Your task to perform on an android device: turn off javascript in the chrome app Image 0: 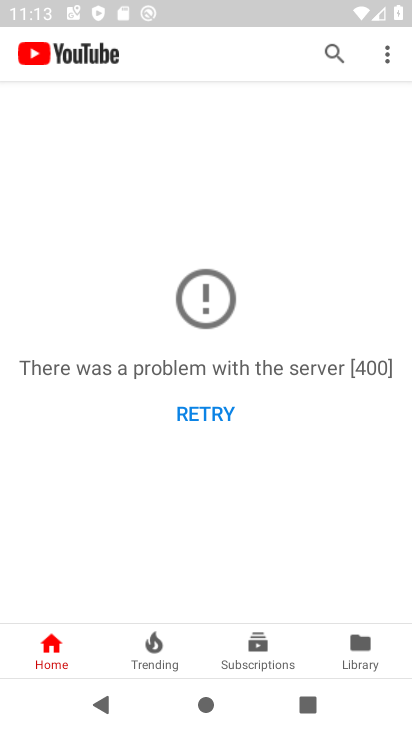
Step 0: press home button
Your task to perform on an android device: turn off javascript in the chrome app Image 1: 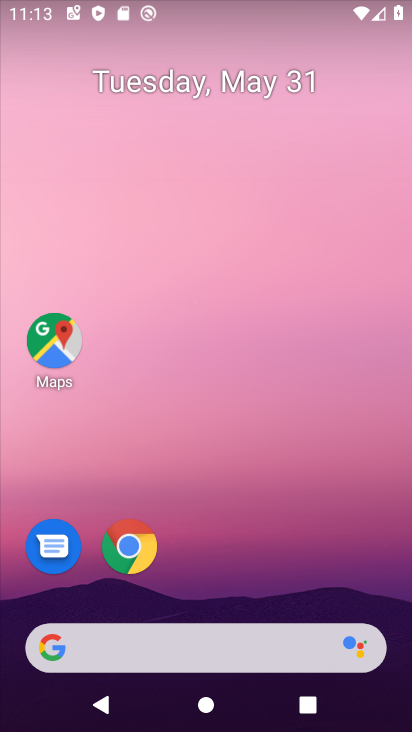
Step 1: click (147, 536)
Your task to perform on an android device: turn off javascript in the chrome app Image 2: 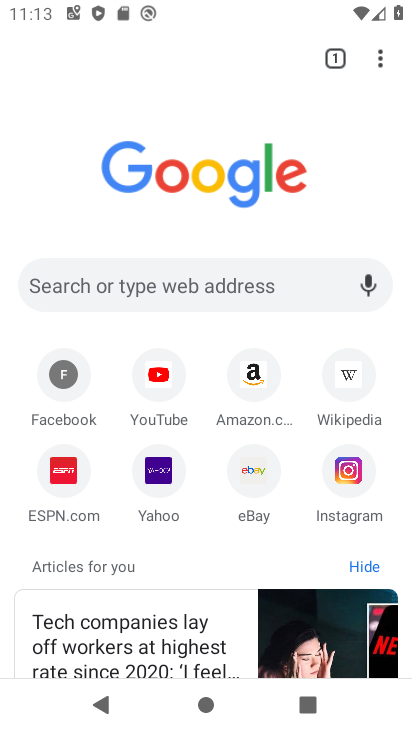
Step 2: click (379, 53)
Your task to perform on an android device: turn off javascript in the chrome app Image 3: 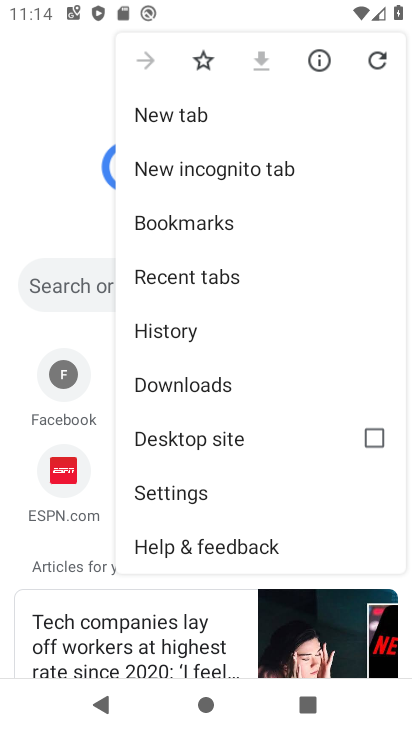
Step 3: click (221, 493)
Your task to perform on an android device: turn off javascript in the chrome app Image 4: 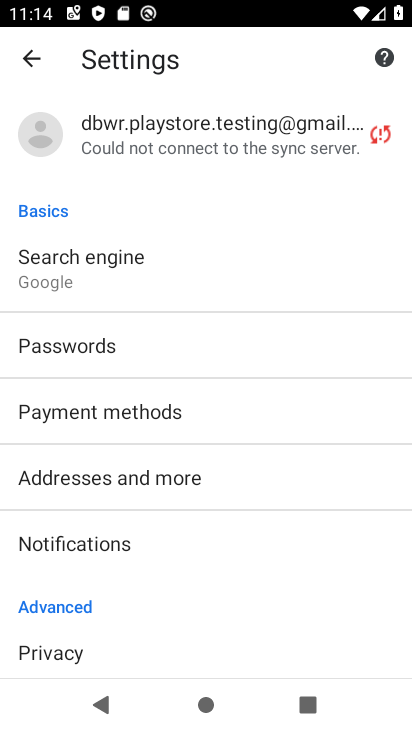
Step 4: drag from (225, 632) to (209, 271)
Your task to perform on an android device: turn off javascript in the chrome app Image 5: 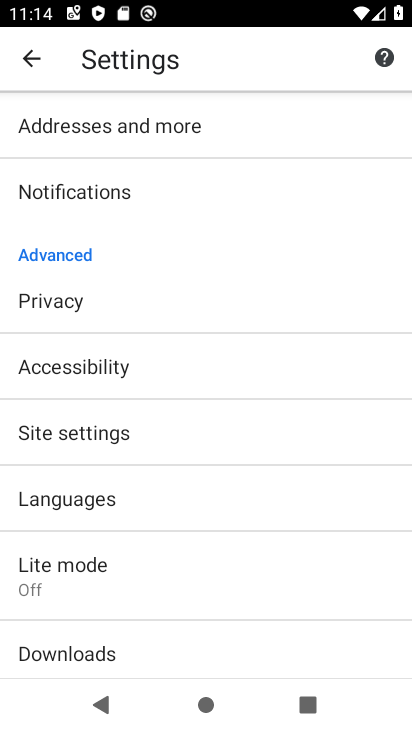
Step 5: click (188, 447)
Your task to perform on an android device: turn off javascript in the chrome app Image 6: 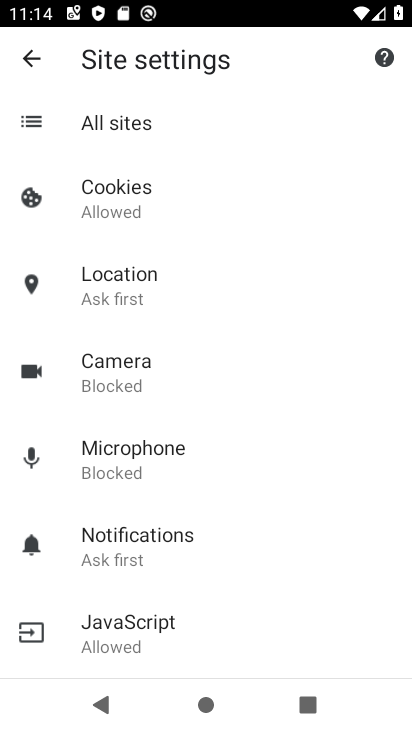
Step 6: click (220, 633)
Your task to perform on an android device: turn off javascript in the chrome app Image 7: 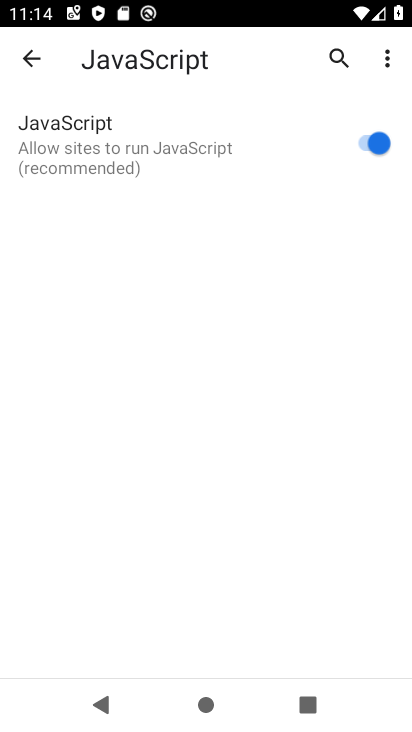
Step 7: click (377, 138)
Your task to perform on an android device: turn off javascript in the chrome app Image 8: 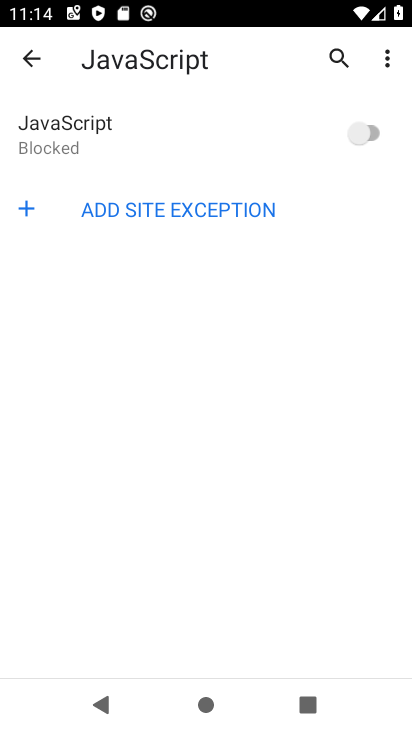
Step 8: task complete